Your task to perform on an android device: Turn off the flashlight Image 0: 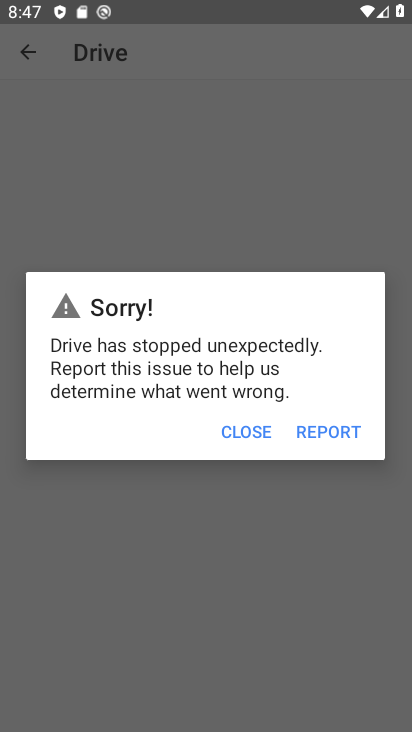
Step 0: press home button
Your task to perform on an android device: Turn off the flashlight Image 1: 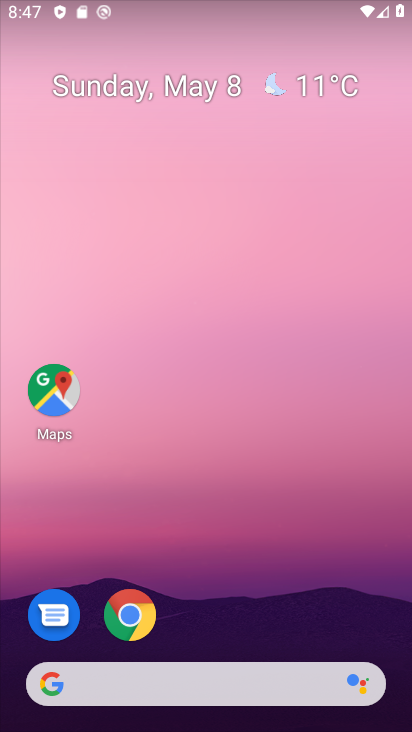
Step 1: drag from (221, 0) to (220, 495)
Your task to perform on an android device: Turn off the flashlight Image 2: 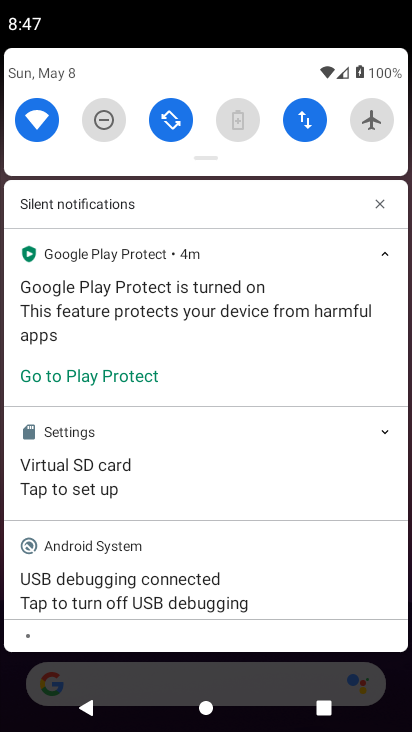
Step 2: drag from (224, 126) to (226, 491)
Your task to perform on an android device: Turn off the flashlight Image 3: 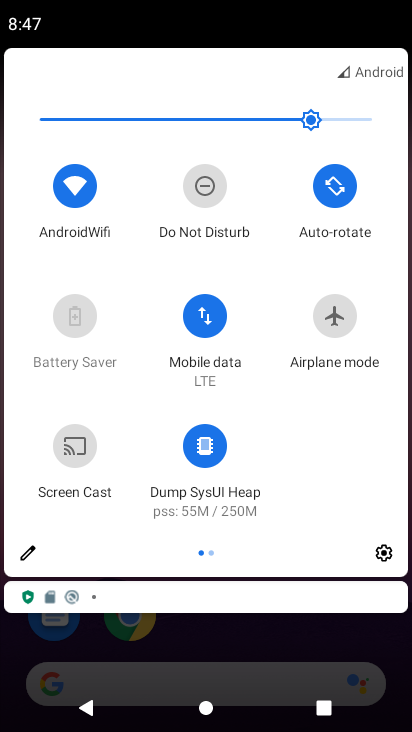
Step 3: drag from (351, 366) to (30, 381)
Your task to perform on an android device: Turn off the flashlight Image 4: 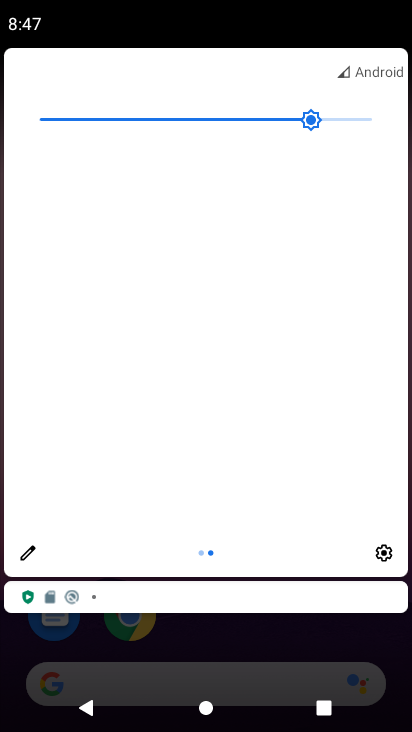
Step 4: click (23, 554)
Your task to perform on an android device: Turn off the flashlight Image 5: 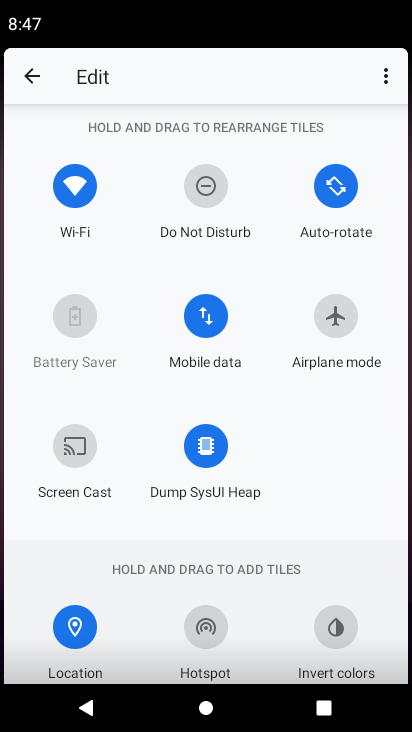
Step 5: task complete